Your task to perform on an android device: turn off sleep mode Image 0: 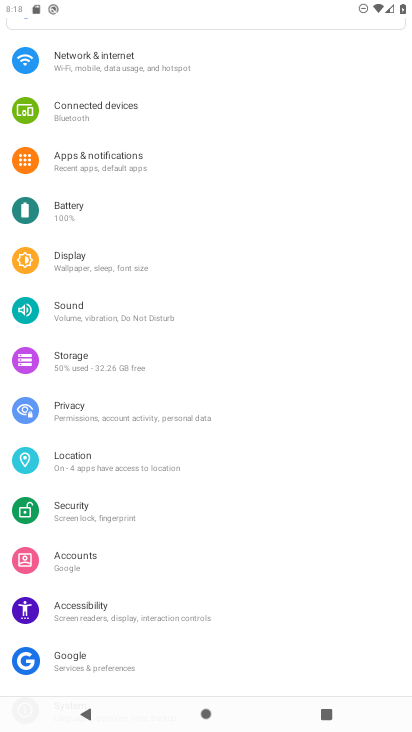
Step 0: drag from (215, 183) to (118, 581)
Your task to perform on an android device: turn off sleep mode Image 1: 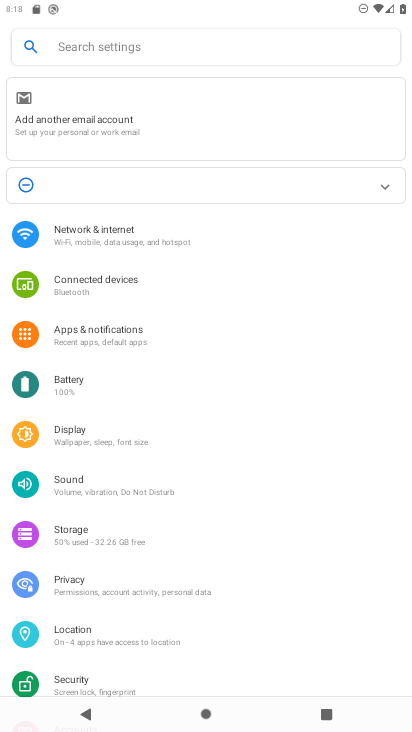
Step 1: click (194, 46)
Your task to perform on an android device: turn off sleep mode Image 2: 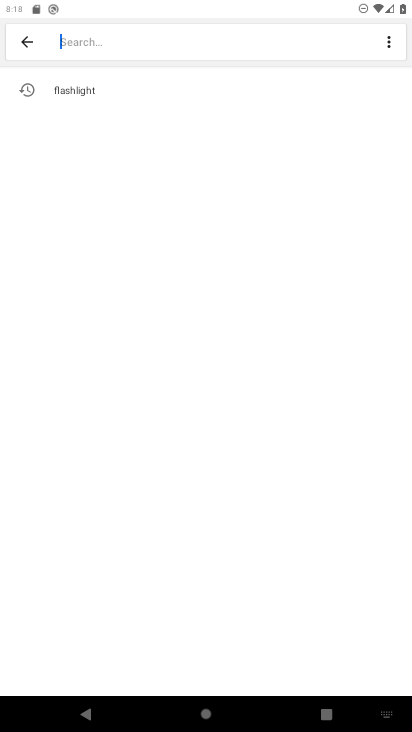
Step 2: type "sleep mode"
Your task to perform on an android device: turn off sleep mode Image 3: 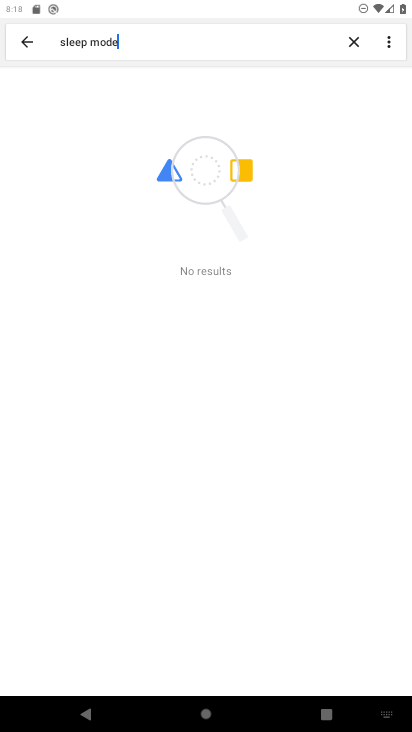
Step 3: task complete